Your task to perform on an android device: Do I have any events this weekend? Image 0: 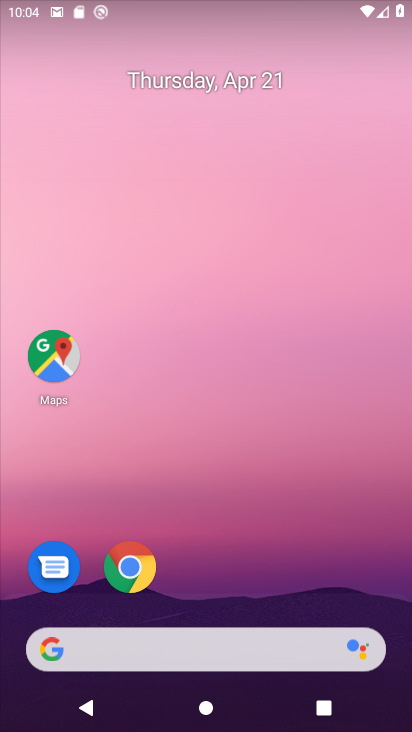
Step 0: drag from (194, 441) to (342, 2)
Your task to perform on an android device: Do I have any events this weekend? Image 1: 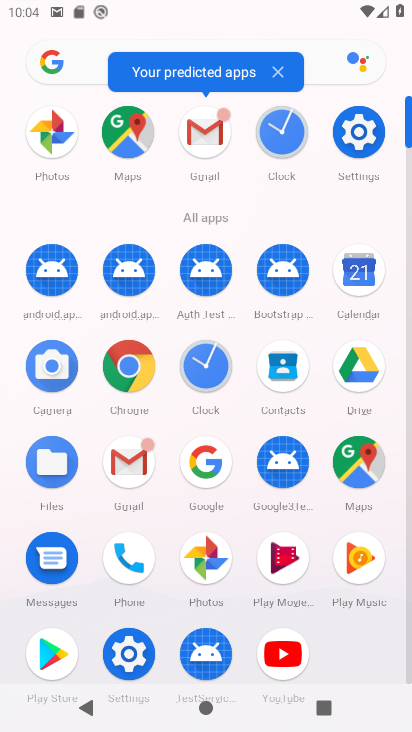
Step 1: click (363, 282)
Your task to perform on an android device: Do I have any events this weekend? Image 2: 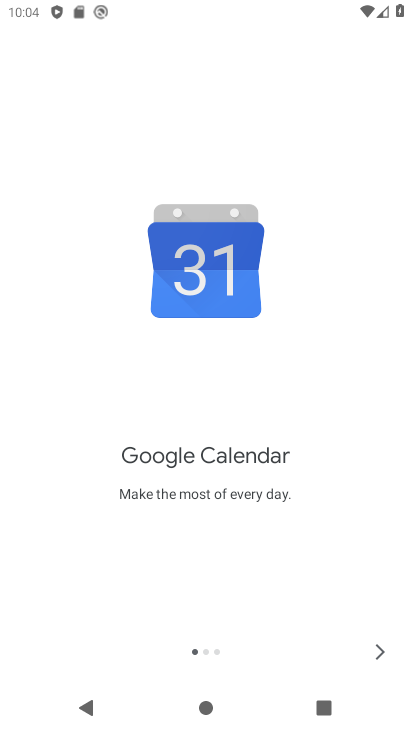
Step 2: click (378, 643)
Your task to perform on an android device: Do I have any events this weekend? Image 3: 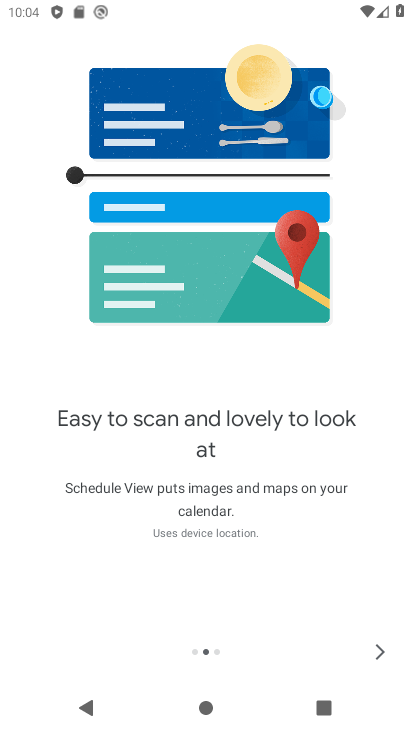
Step 3: click (377, 650)
Your task to perform on an android device: Do I have any events this weekend? Image 4: 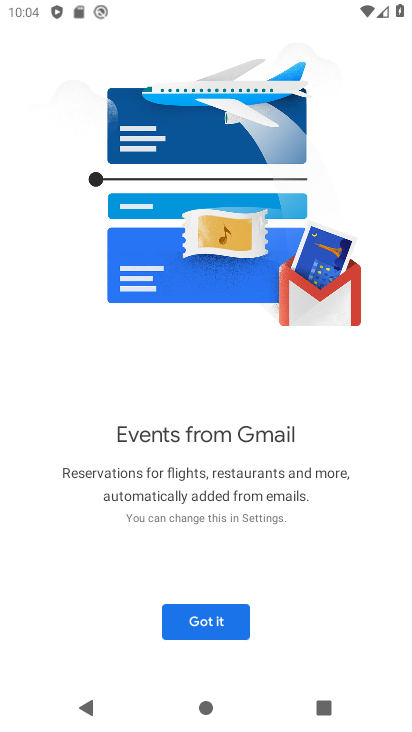
Step 4: click (240, 617)
Your task to perform on an android device: Do I have any events this weekend? Image 5: 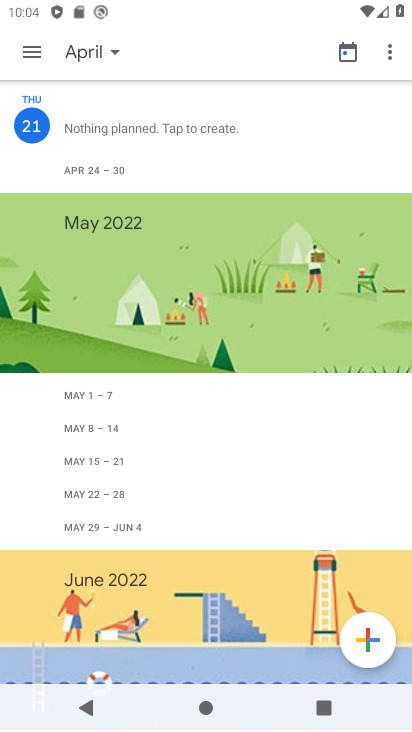
Step 5: click (27, 52)
Your task to perform on an android device: Do I have any events this weekend? Image 6: 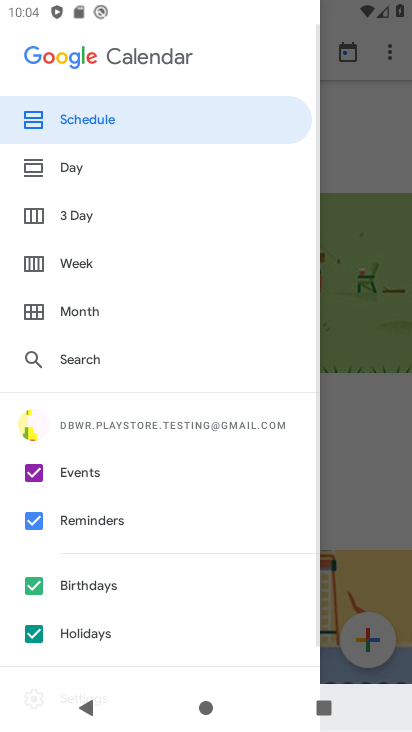
Step 6: click (40, 520)
Your task to perform on an android device: Do I have any events this weekend? Image 7: 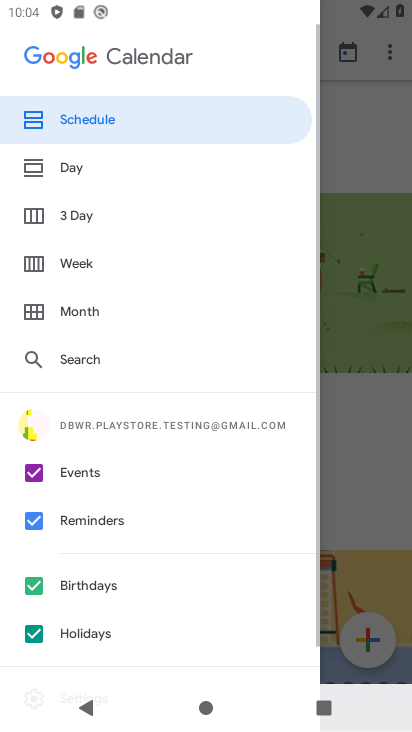
Step 7: click (34, 582)
Your task to perform on an android device: Do I have any events this weekend? Image 8: 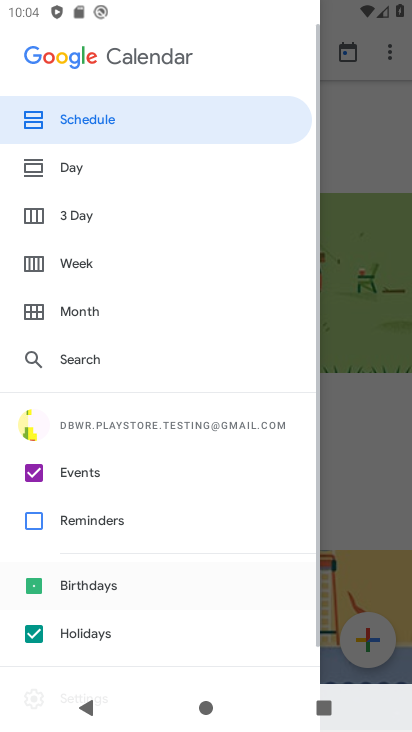
Step 8: click (30, 637)
Your task to perform on an android device: Do I have any events this weekend? Image 9: 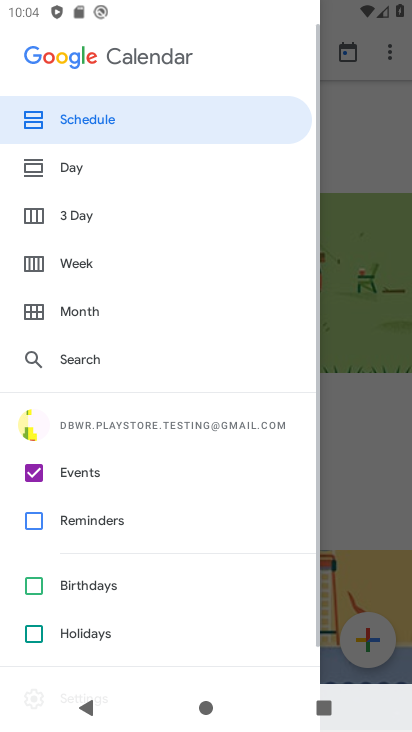
Step 9: click (81, 264)
Your task to perform on an android device: Do I have any events this weekend? Image 10: 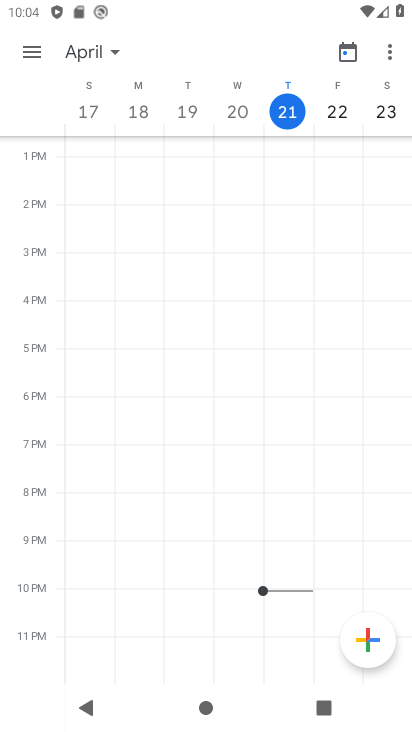
Step 10: task complete